Your task to perform on an android device: Add "usb-c to usb-b" to the cart on bestbuy, then select checkout. Image 0: 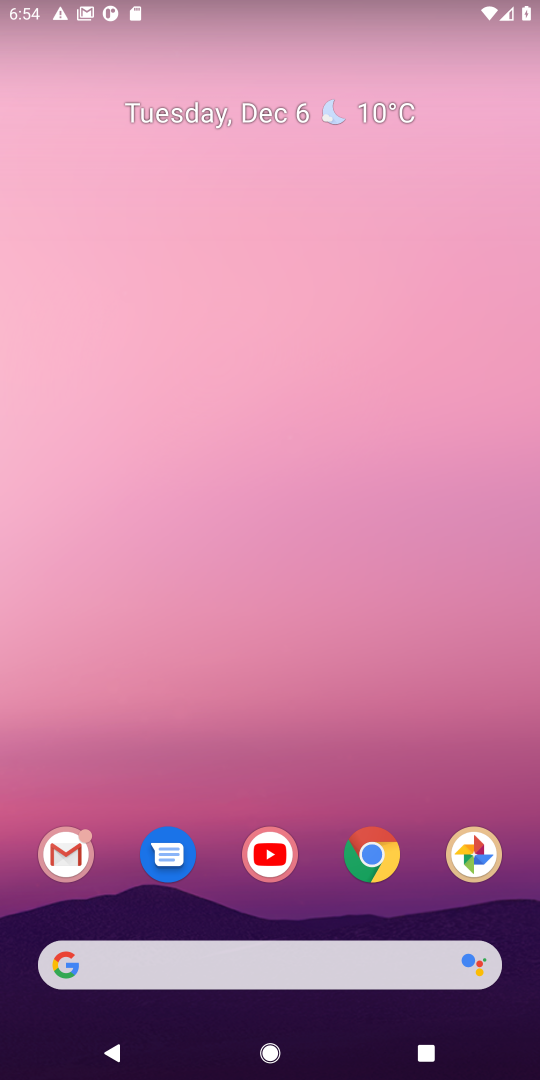
Step 0: click (372, 858)
Your task to perform on an android device: Add "usb-c to usb-b" to the cart on bestbuy, then select checkout. Image 1: 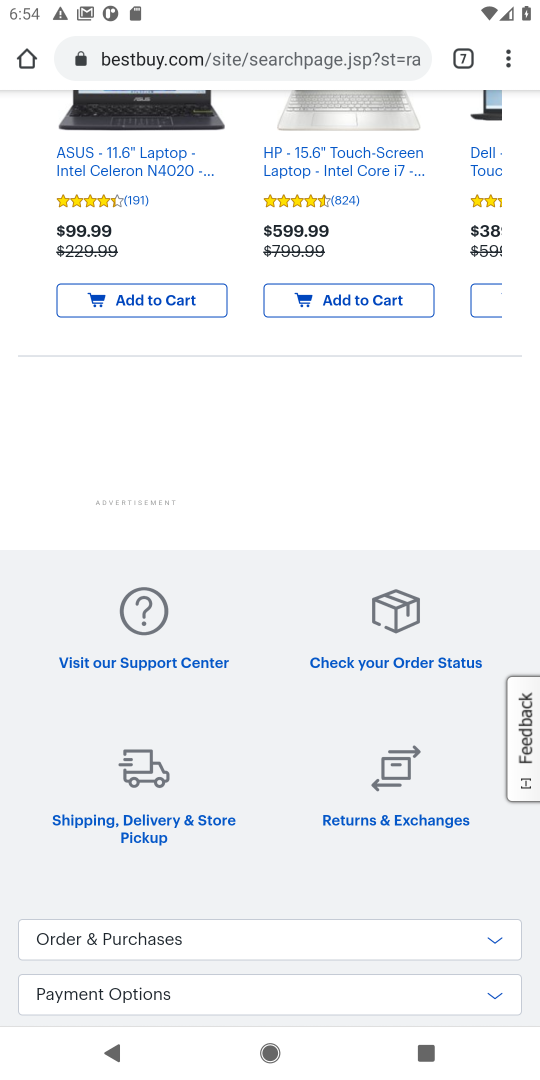
Step 1: drag from (228, 144) to (80, 800)
Your task to perform on an android device: Add "usb-c to usb-b" to the cart on bestbuy, then select checkout. Image 2: 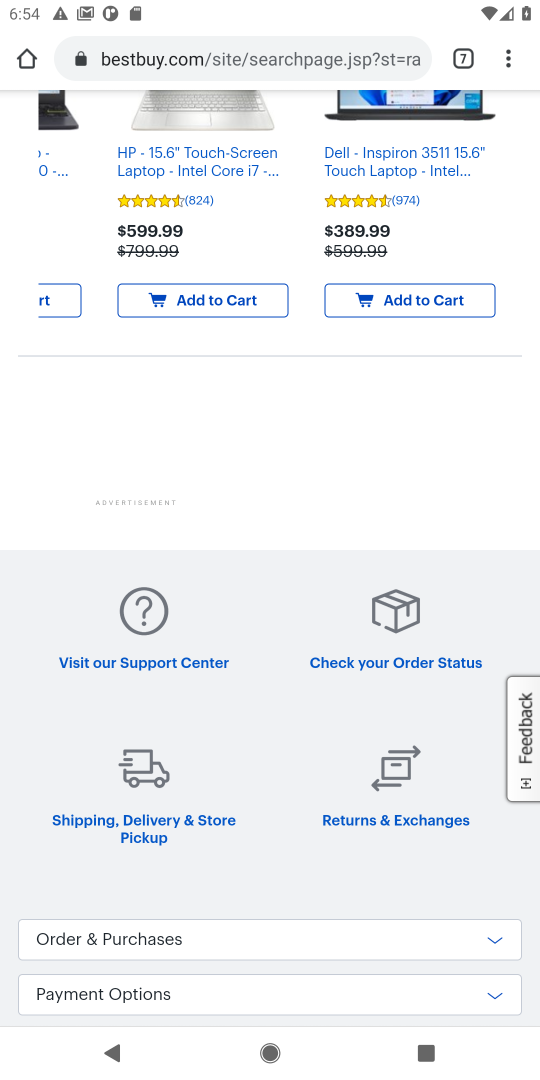
Step 2: drag from (87, 200) to (106, 694)
Your task to perform on an android device: Add "usb-c to usb-b" to the cart on bestbuy, then select checkout. Image 3: 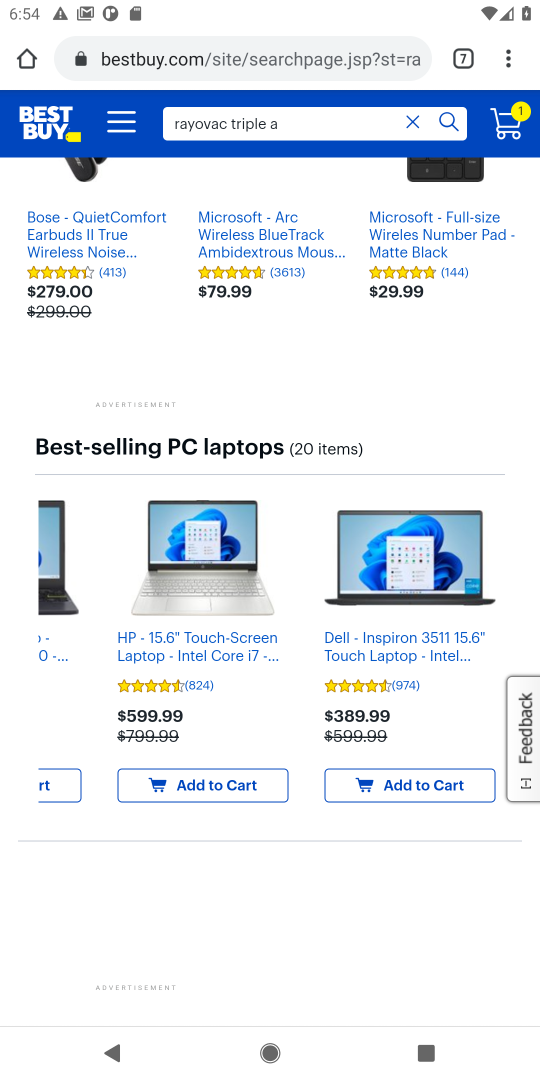
Step 3: click (416, 126)
Your task to perform on an android device: Add "usb-c to usb-b" to the cart on bestbuy, then select checkout. Image 4: 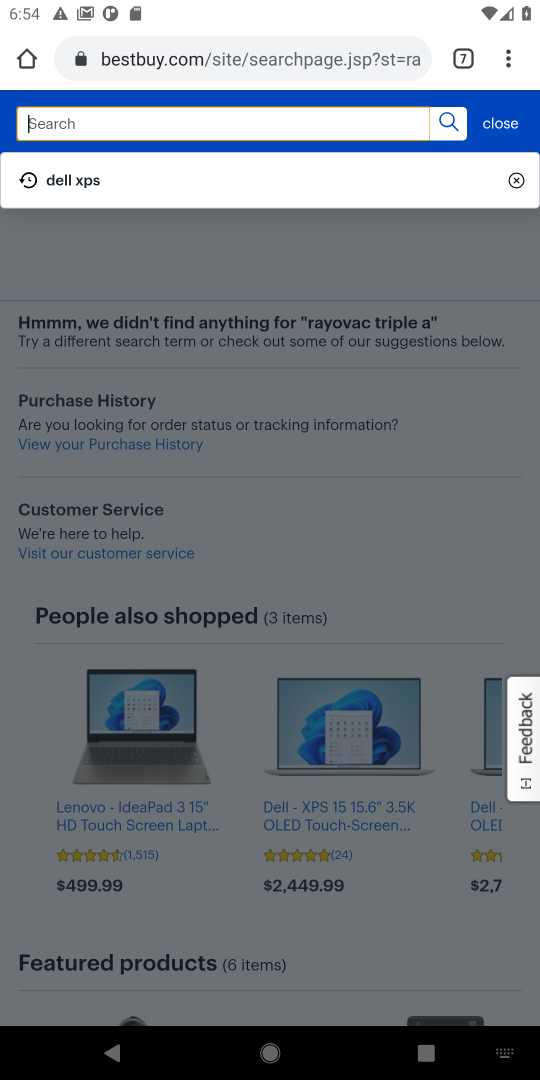
Step 4: type "usb-c to usb-b"
Your task to perform on an android device: Add "usb-c to usb-b" to the cart on bestbuy, then select checkout. Image 5: 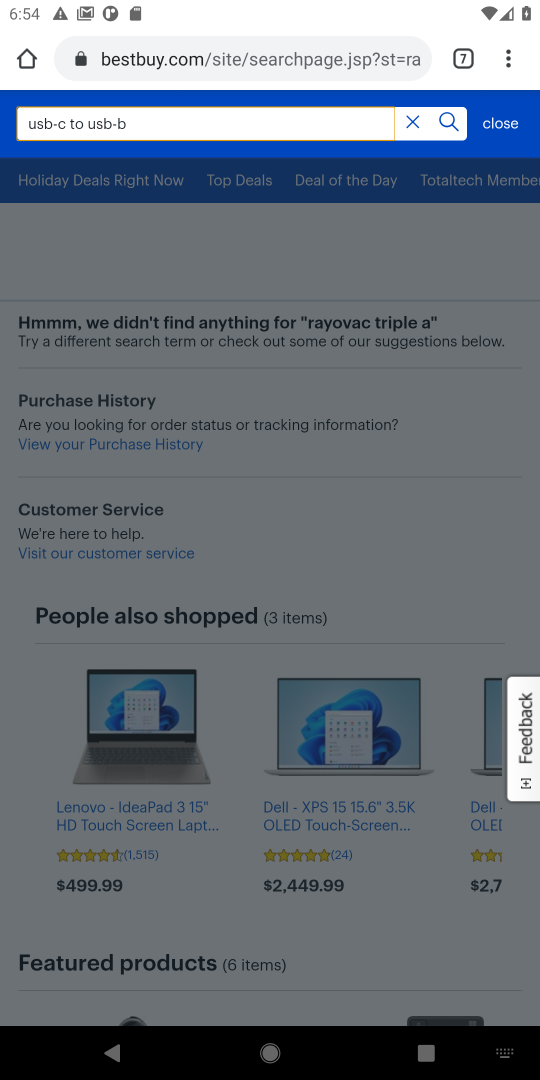
Step 5: click (450, 124)
Your task to perform on an android device: Add "usb-c to usb-b" to the cart on bestbuy, then select checkout. Image 6: 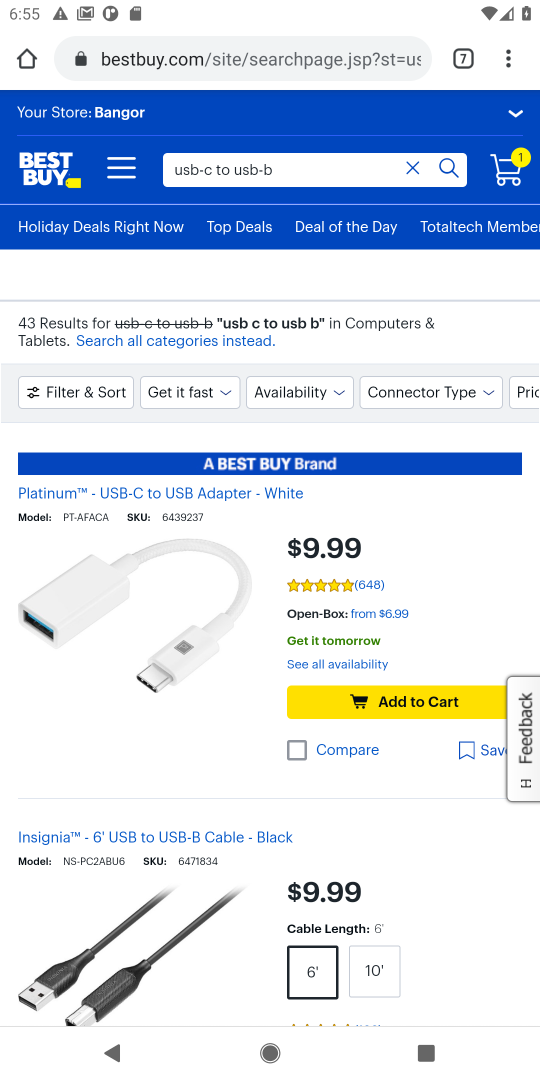
Step 6: click (448, 698)
Your task to perform on an android device: Add "usb-c to usb-b" to the cart on bestbuy, then select checkout. Image 7: 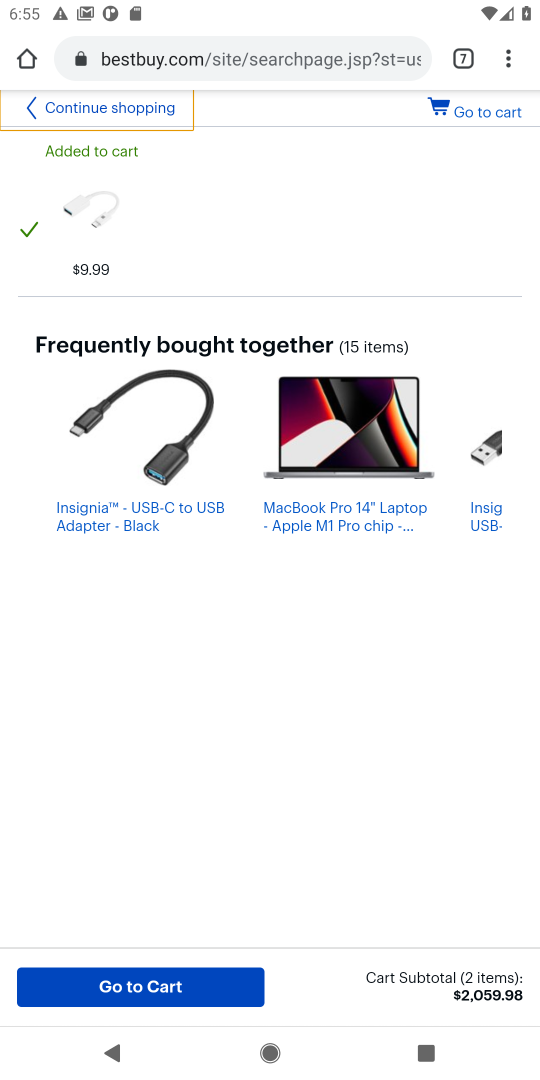
Step 7: task complete